Your task to perform on an android device: open device folders in google photos Image 0: 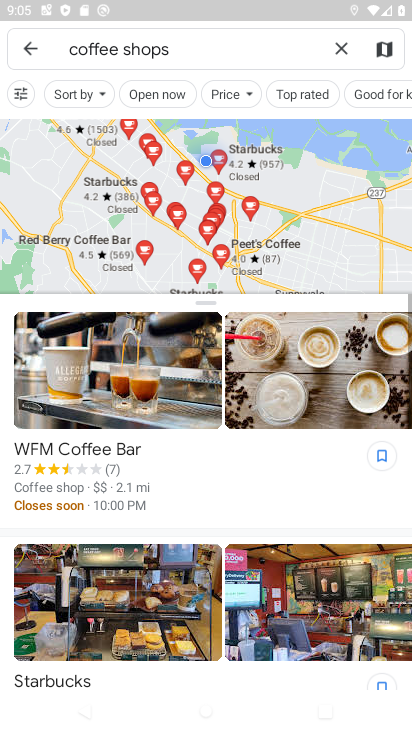
Step 0: press home button
Your task to perform on an android device: open device folders in google photos Image 1: 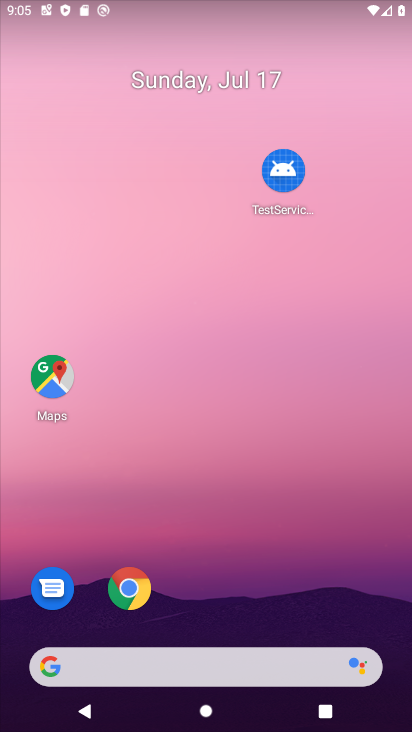
Step 1: drag from (214, 629) to (288, 119)
Your task to perform on an android device: open device folders in google photos Image 2: 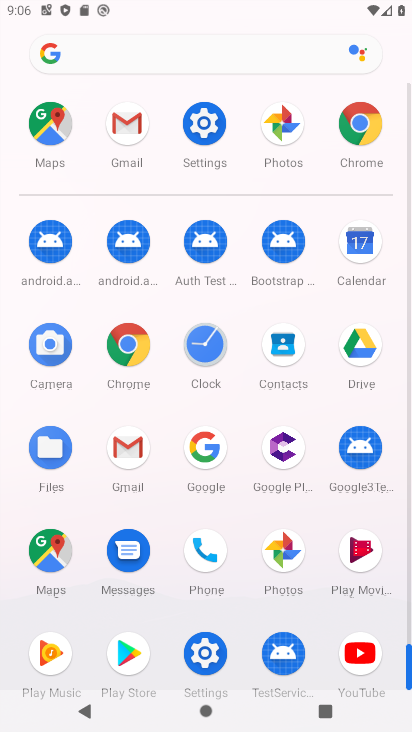
Step 2: click (284, 564)
Your task to perform on an android device: open device folders in google photos Image 3: 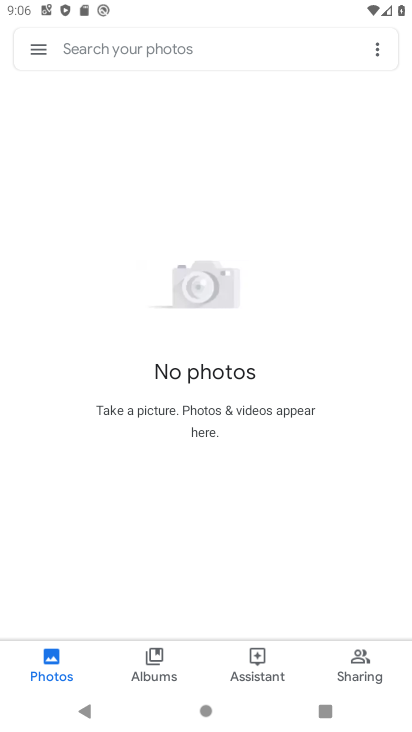
Step 3: click (41, 58)
Your task to perform on an android device: open device folders in google photos Image 4: 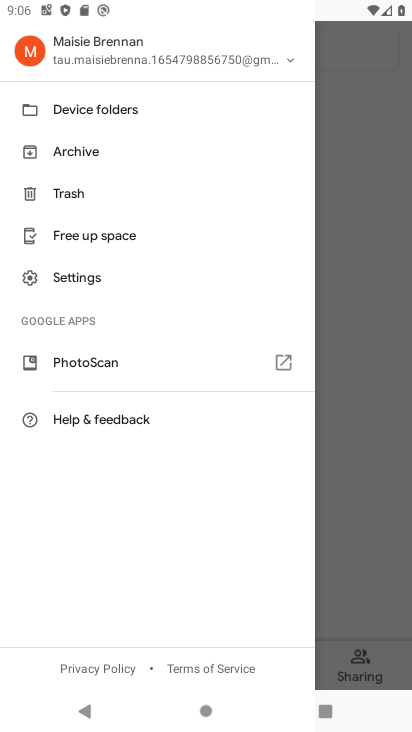
Step 4: click (99, 112)
Your task to perform on an android device: open device folders in google photos Image 5: 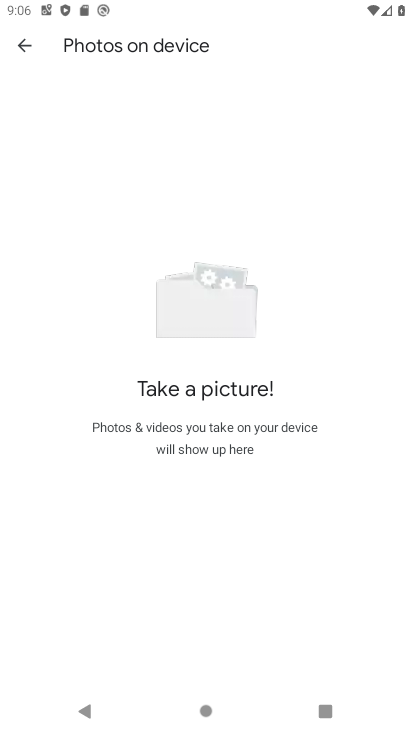
Step 5: task complete